Your task to perform on an android device: turn on showing notifications on the lock screen Image 0: 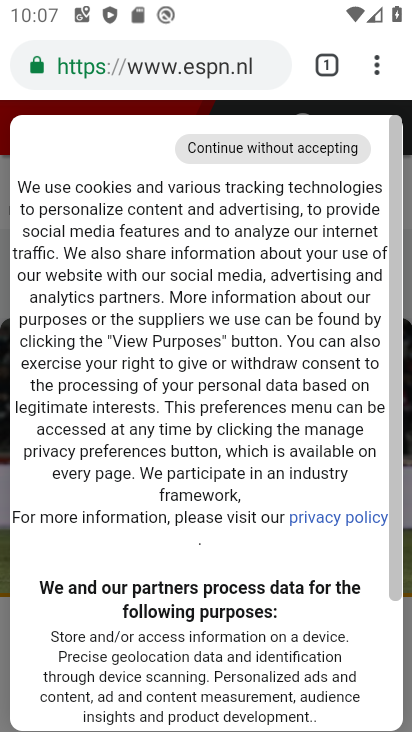
Step 0: press home button
Your task to perform on an android device: turn on showing notifications on the lock screen Image 1: 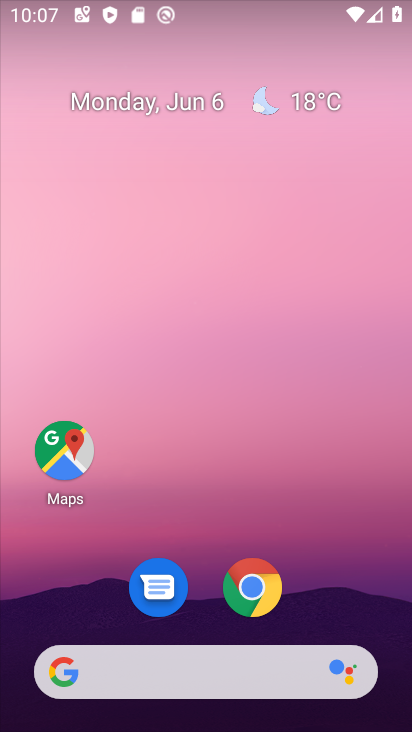
Step 1: drag from (353, 556) to (300, 52)
Your task to perform on an android device: turn on showing notifications on the lock screen Image 2: 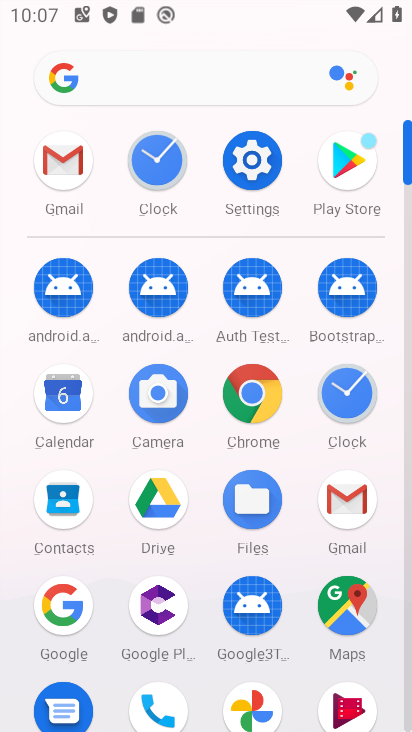
Step 2: click (251, 155)
Your task to perform on an android device: turn on showing notifications on the lock screen Image 3: 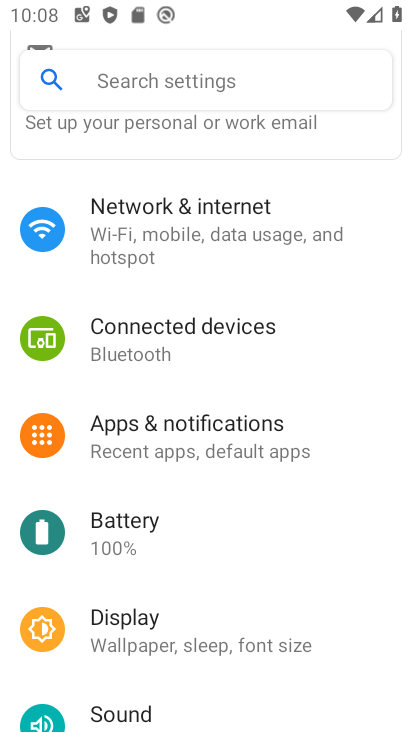
Step 3: click (201, 444)
Your task to perform on an android device: turn on showing notifications on the lock screen Image 4: 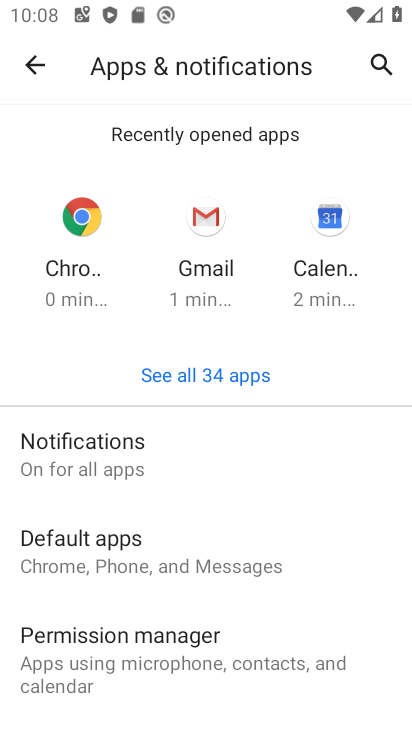
Step 4: drag from (258, 649) to (290, 176)
Your task to perform on an android device: turn on showing notifications on the lock screen Image 5: 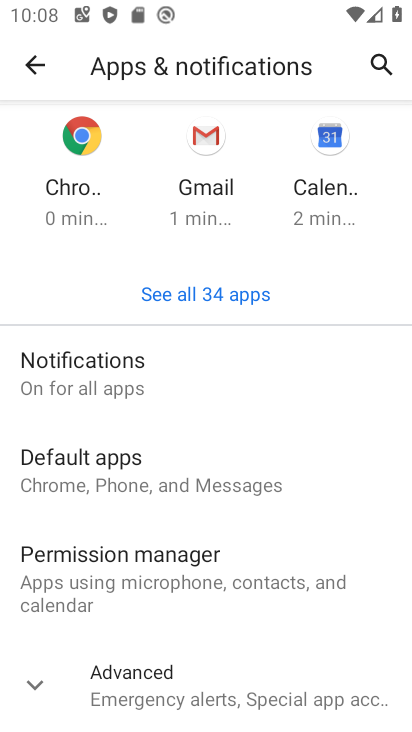
Step 5: click (211, 376)
Your task to perform on an android device: turn on showing notifications on the lock screen Image 6: 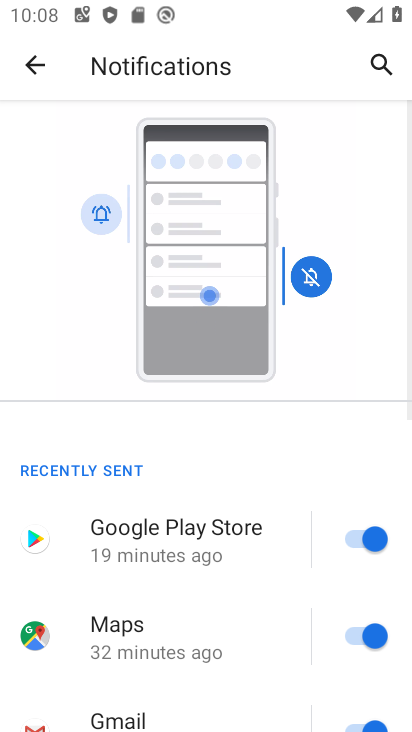
Step 6: drag from (221, 684) to (260, 111)
Your task to perform on an android device: turn on showing notifications on the lock screen Image 7: 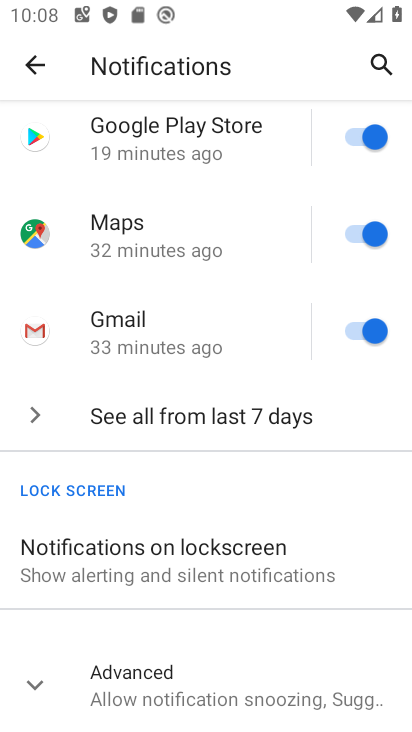
Step 7: click (222, 574)
Your task to perform on an android device: turn on showing notifications on the lock screen Image 8: 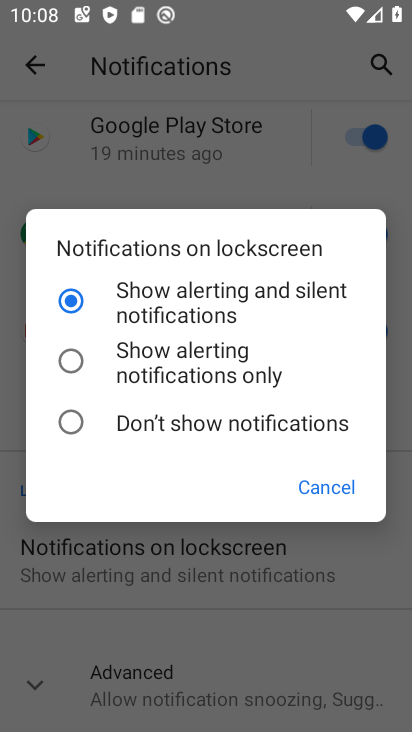
Step 8: click (258, 305)
Your task to perform on an android device: turn on showing notifications on the lock screen Image 9: 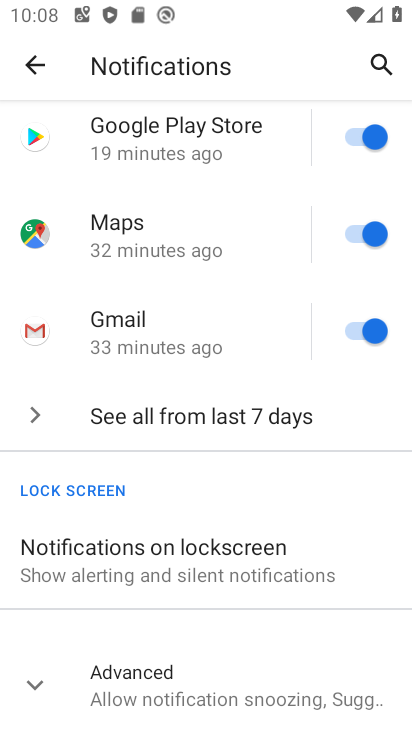
Step 9: task complete